Your task to perform on an android device: open sync settings in chrome Image 0: 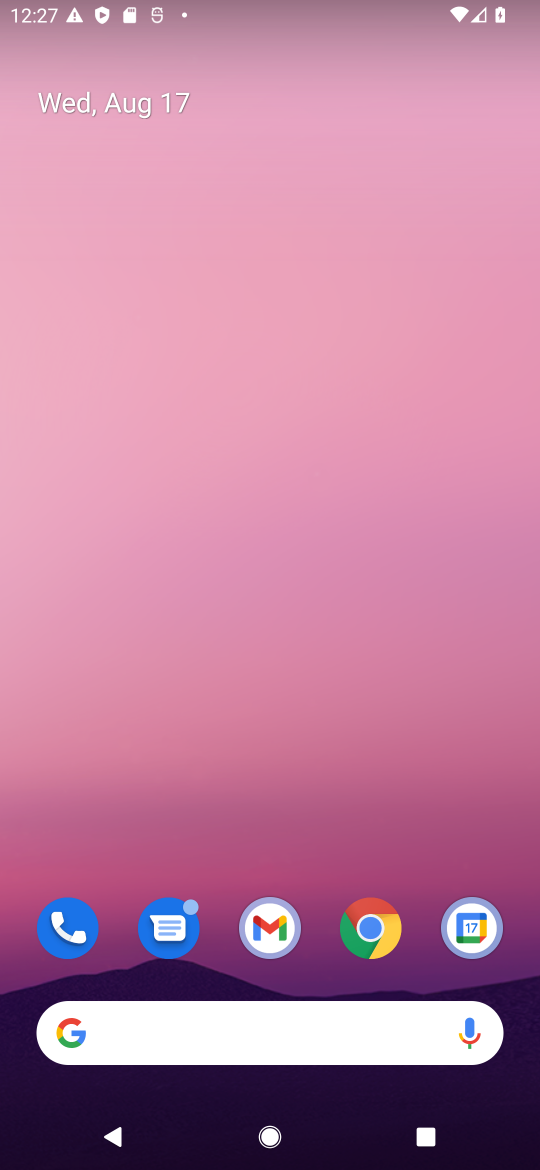
Step 0: click (390, 937)
Your task to perform on an android device: open sync settings in chrome Image 1: 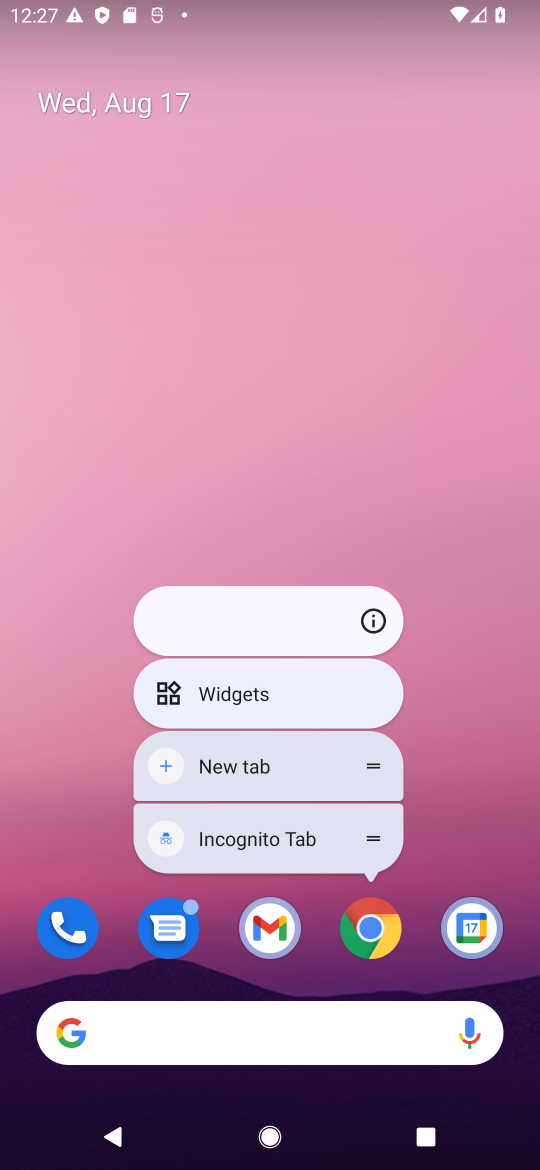
Step 1: click (360, 907)
Your task to perform on an android device: open sync settings in chrome Image 2: 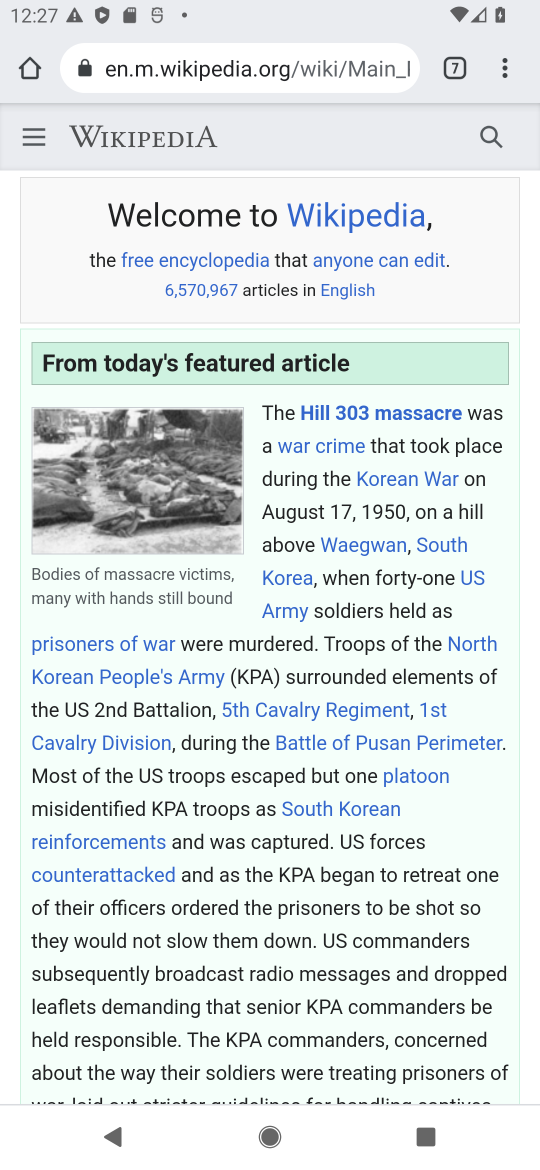
Step 2: click (504, 72)
Your task to perform on an android device: open sync settings in chrome Image 3: 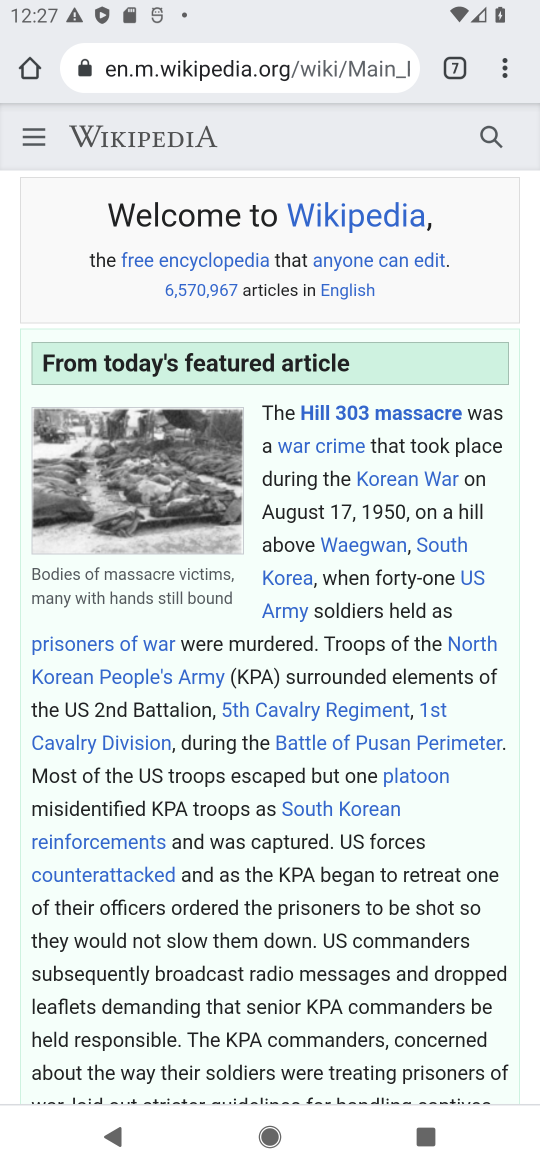
Step 3: click (518, 74)
Your task to perform on an android device: open sync settings in chrome Image 4: 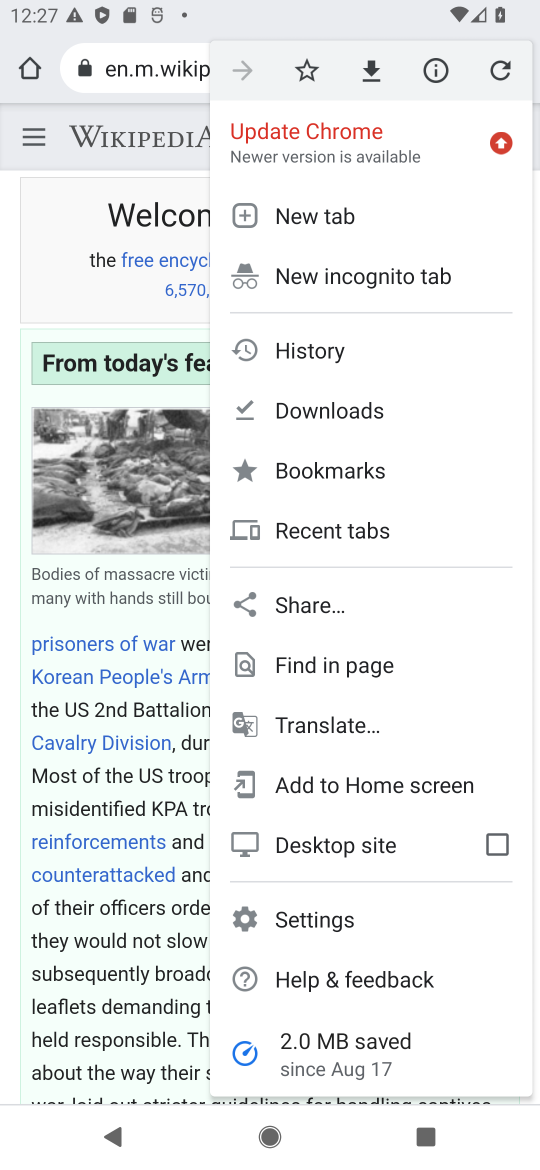
Step 4: click (344, 933)
Your task to perform on an android device: open sync settings in chrome Image 5: 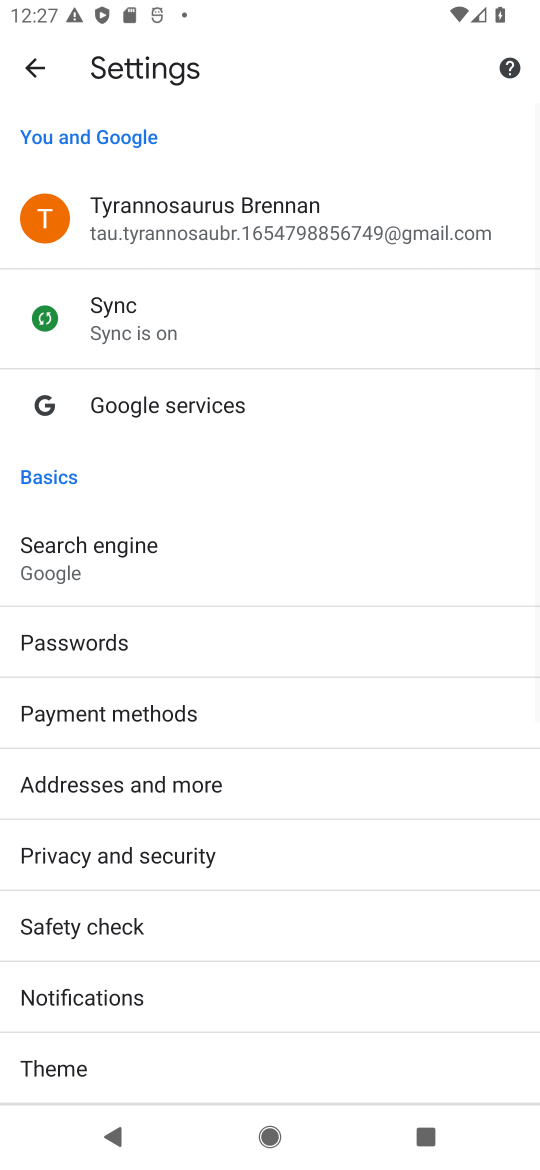
Step 5: click (200, 361)
Your task to perform on an android device: open sync settings in chrome Image 6: 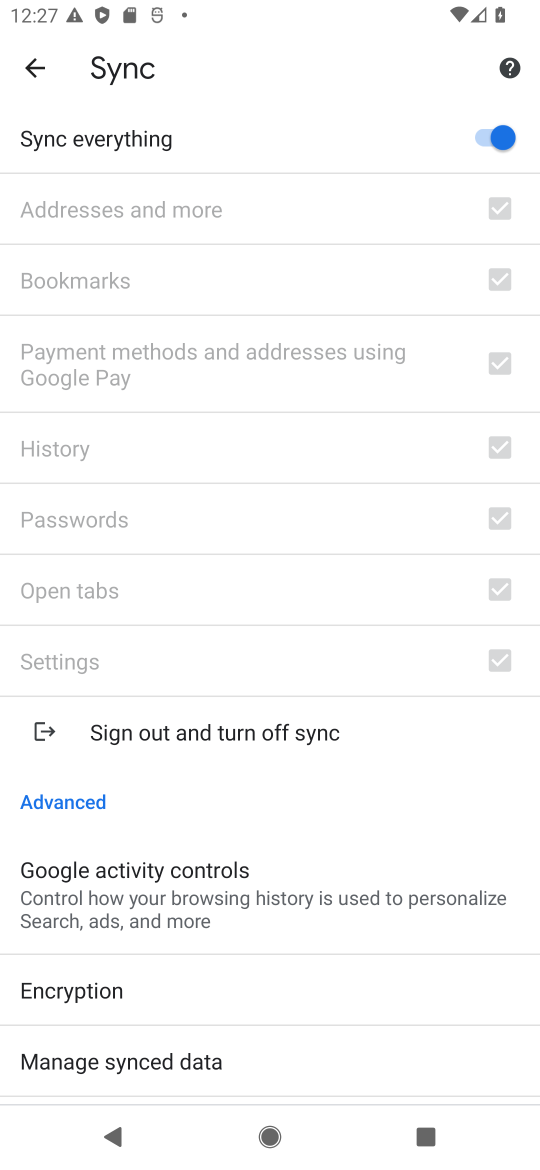
Step 6: task complete